Your task to perform on an android device: refresh tabs in the chrome app Image 0: 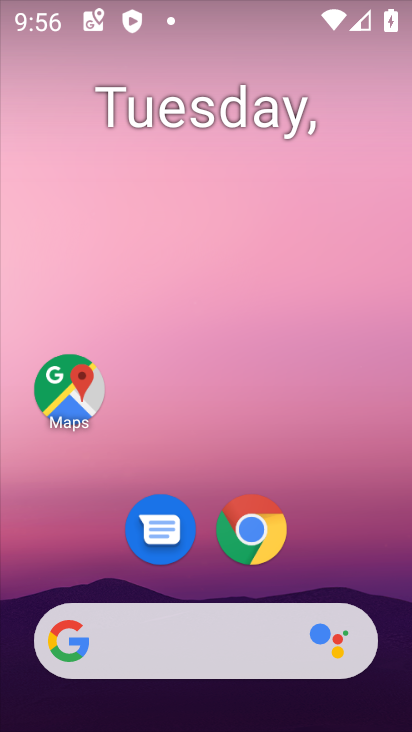
Step 0: click (251, 527)
Your task to perform on an android device: refresh tabs in the chrome app Image 1: 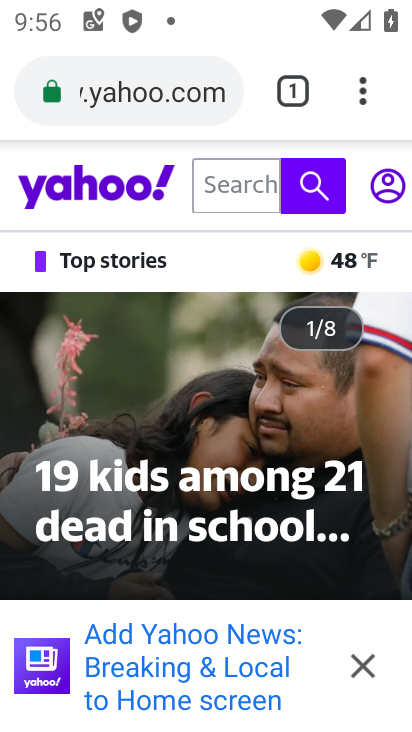
Step 1: click (363, 95)
Your task to perform on an android device: refresh tabs in the chrome app Image 2: 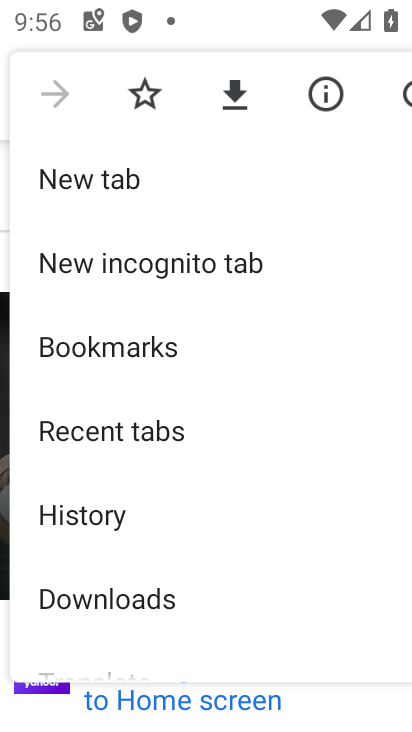
Step 2: drag from (373, 102) to (180, 96)
Your task to perform on an android device: refresh tabs in the chrome app Image 3: 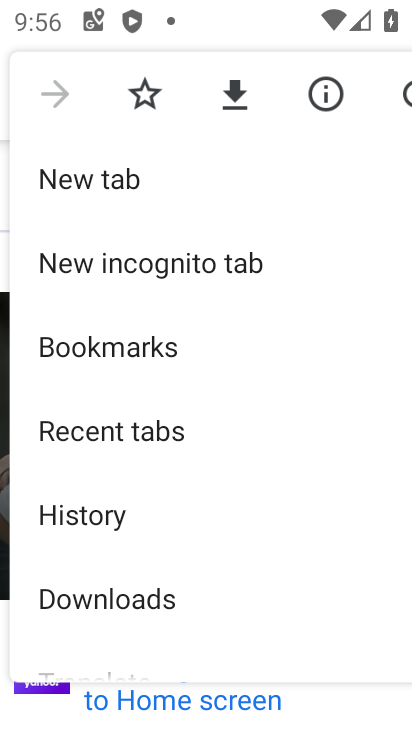
Step 3: drag from (341, 98) to (223, 83)
Your task to perform on an android device: refresh tabs in the chrome app Image 4: 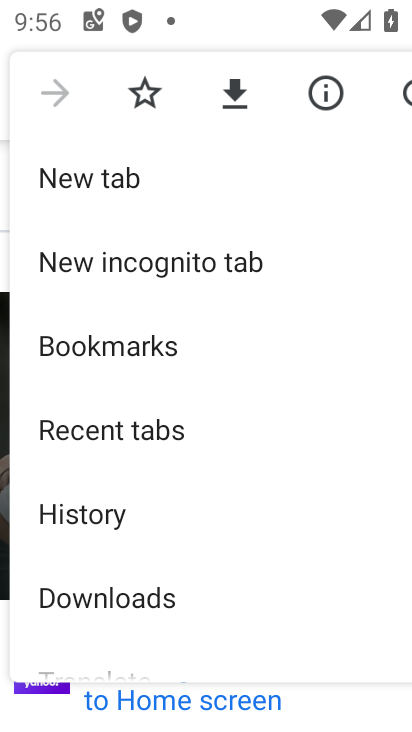
Step 4: click (407, 97)
Your task to perform on an android device: refresh tabs in the chrome app Image 5: 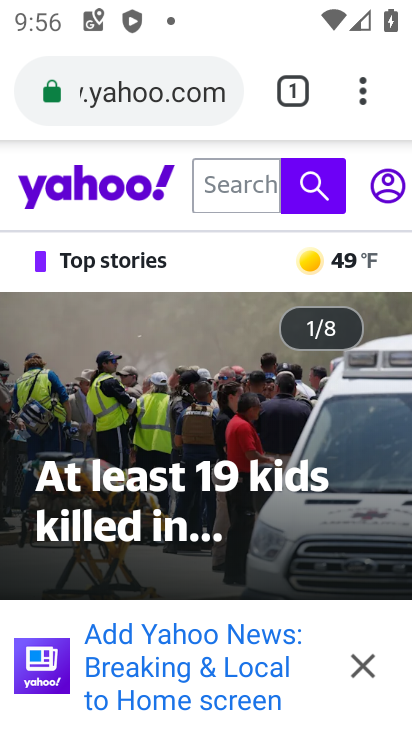
Step 5: task complete